Your task to perform on an android device: Open Chrome and go to settings Image 0: 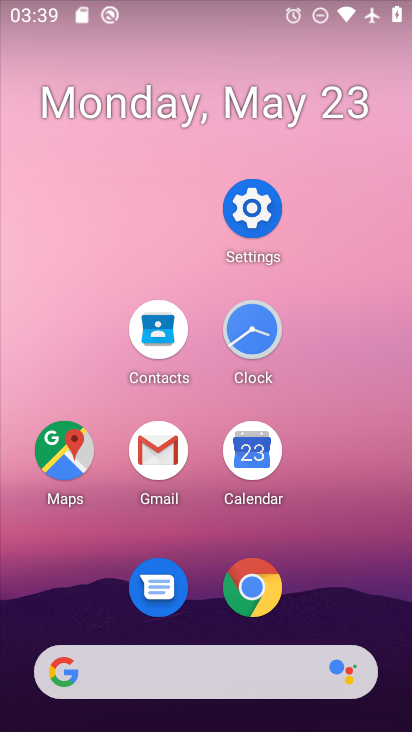
Step 0: click (246, 207)
Your task to perform on an android device: Open Chrome and go to settings Image 1: 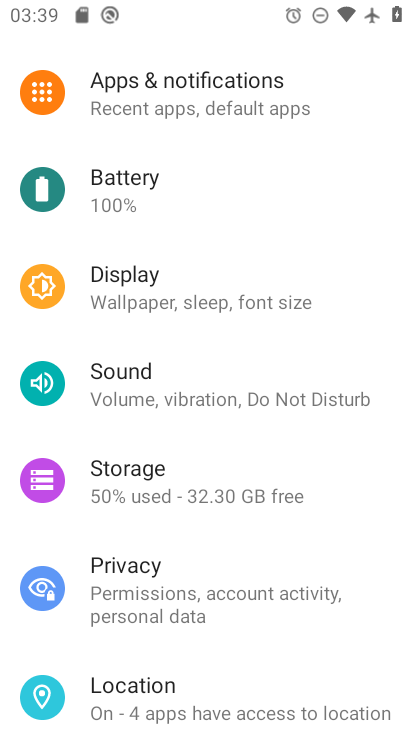
Step 1: press home button
Your task to perform on an android device: Open Chrome and go to settings Image 2: 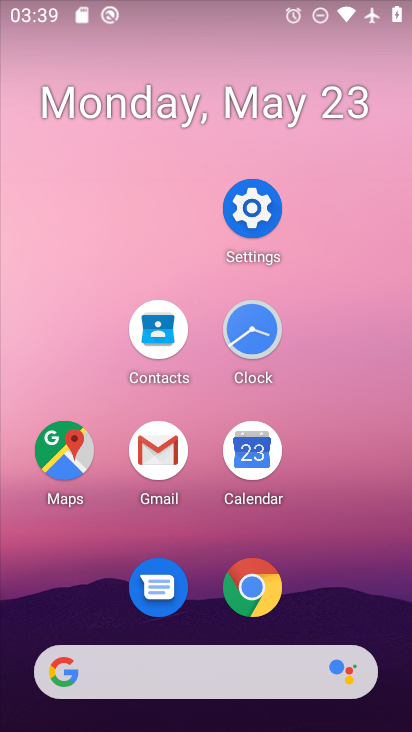
Step 2: click (232, 592)
Your task to perform on an android device: Open Chrome and go to settings Image 3: 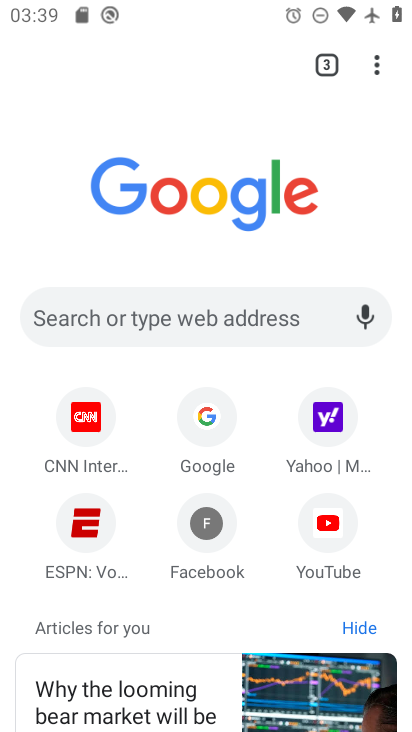
Step 3: click (384, 59)
Your task to perform on an android device: Open Chrome and go to settings Image 4: 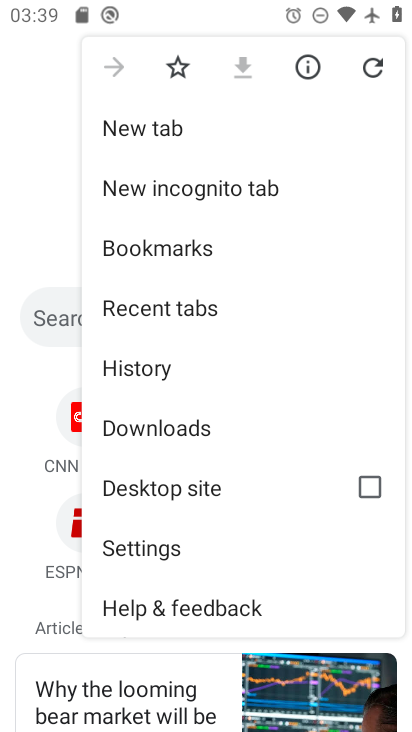
Step 4: click (239, 566)
Your task to perform on an android device: Open Chrome and go to settings Image 5: 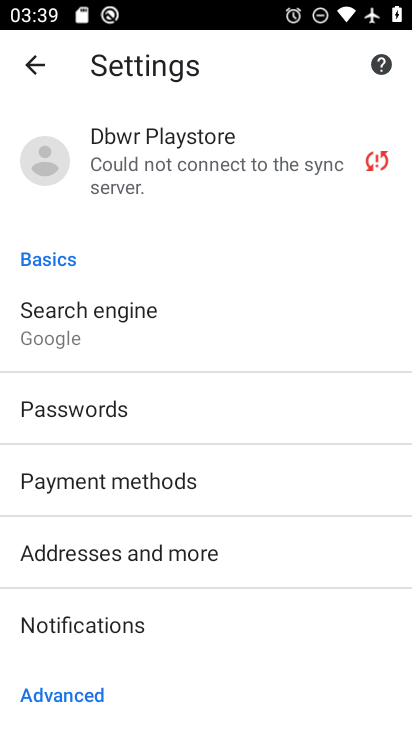
Step 5: task complete